Your task to perform on an android device: open app "Indeed Job Search" (install if not already installed), go to login, and select forgot password Image 0: 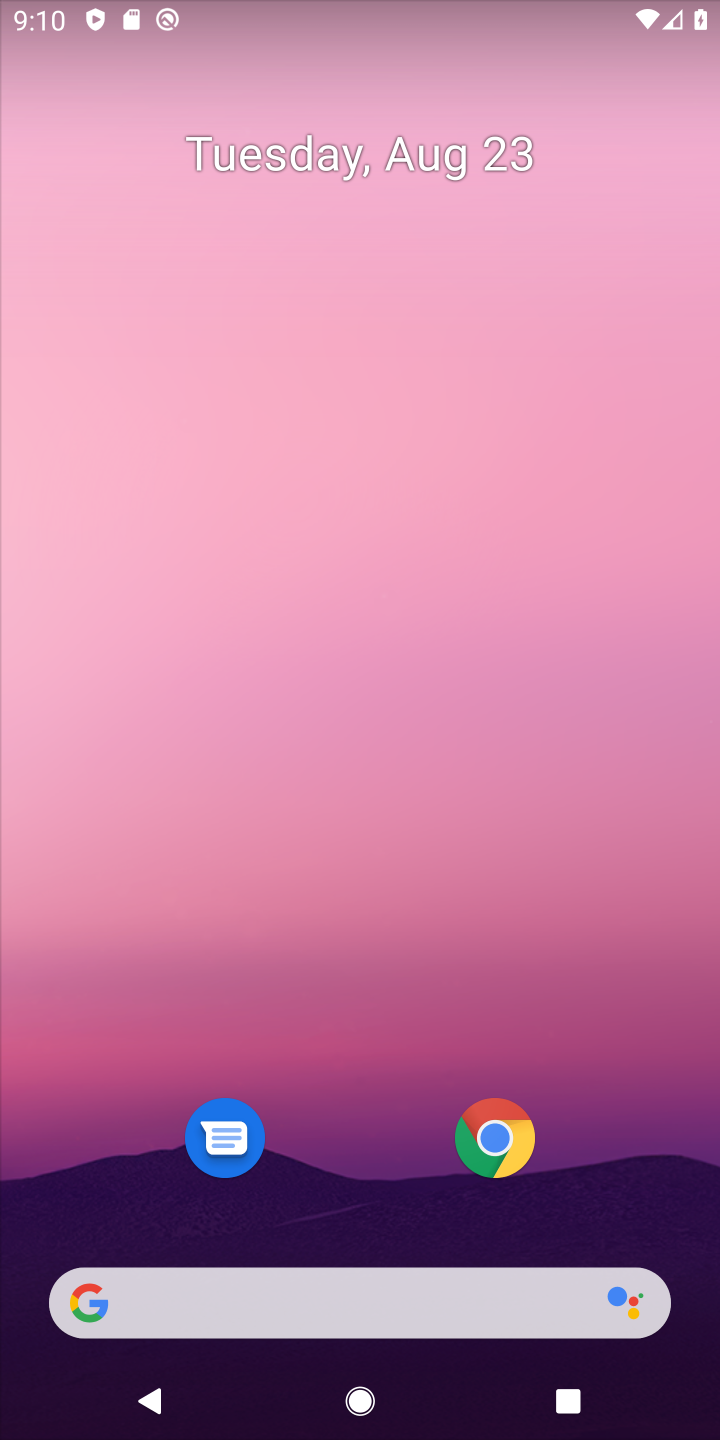
Step 0: drag from (410, 1290) to (594, 66)
Your task to perform on an android device: open app "Indeed Job Search" (install if not already installed), go to login, and select forgot password Image 1: 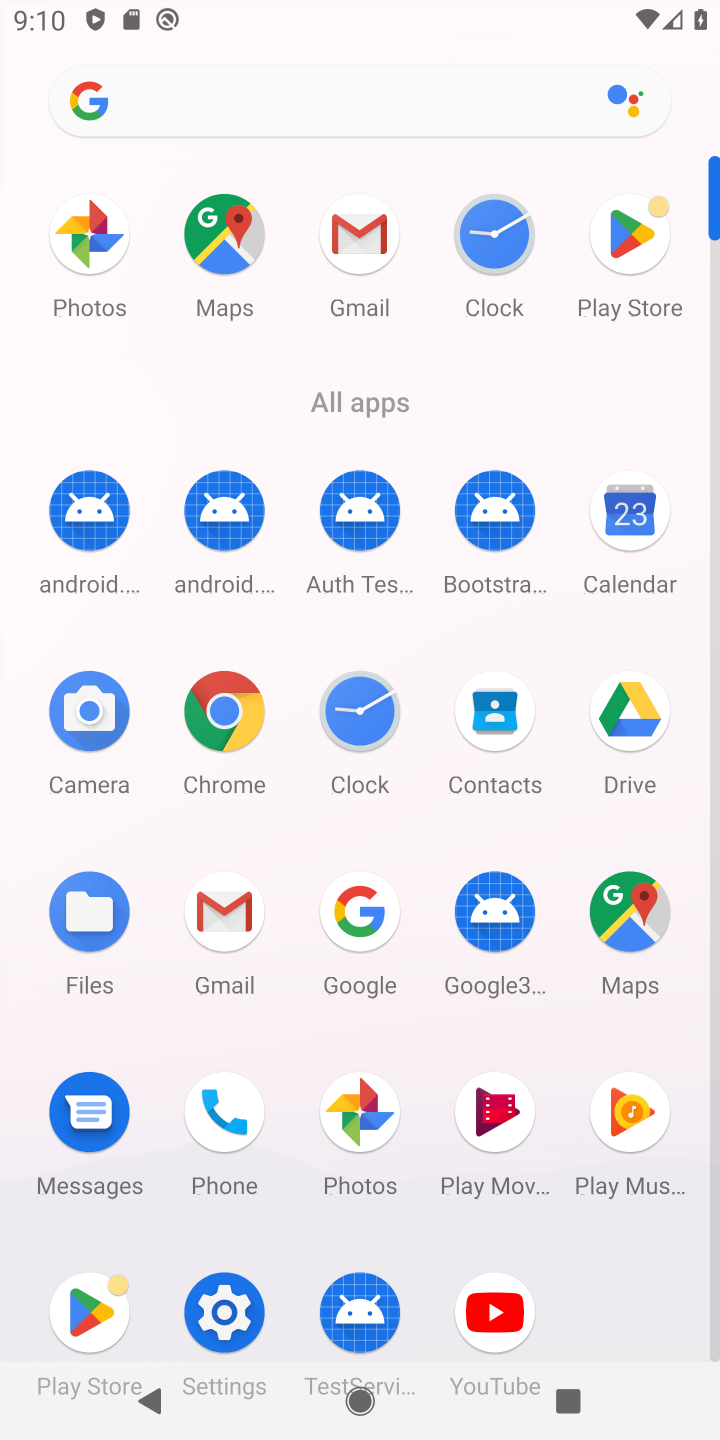
Step 1: drag from (90, 1310) to (424, 753)
Your task to perform on an android device: open app "Indeed Job Search" (install if not already installed), go to login, and select forgot password Image 2: 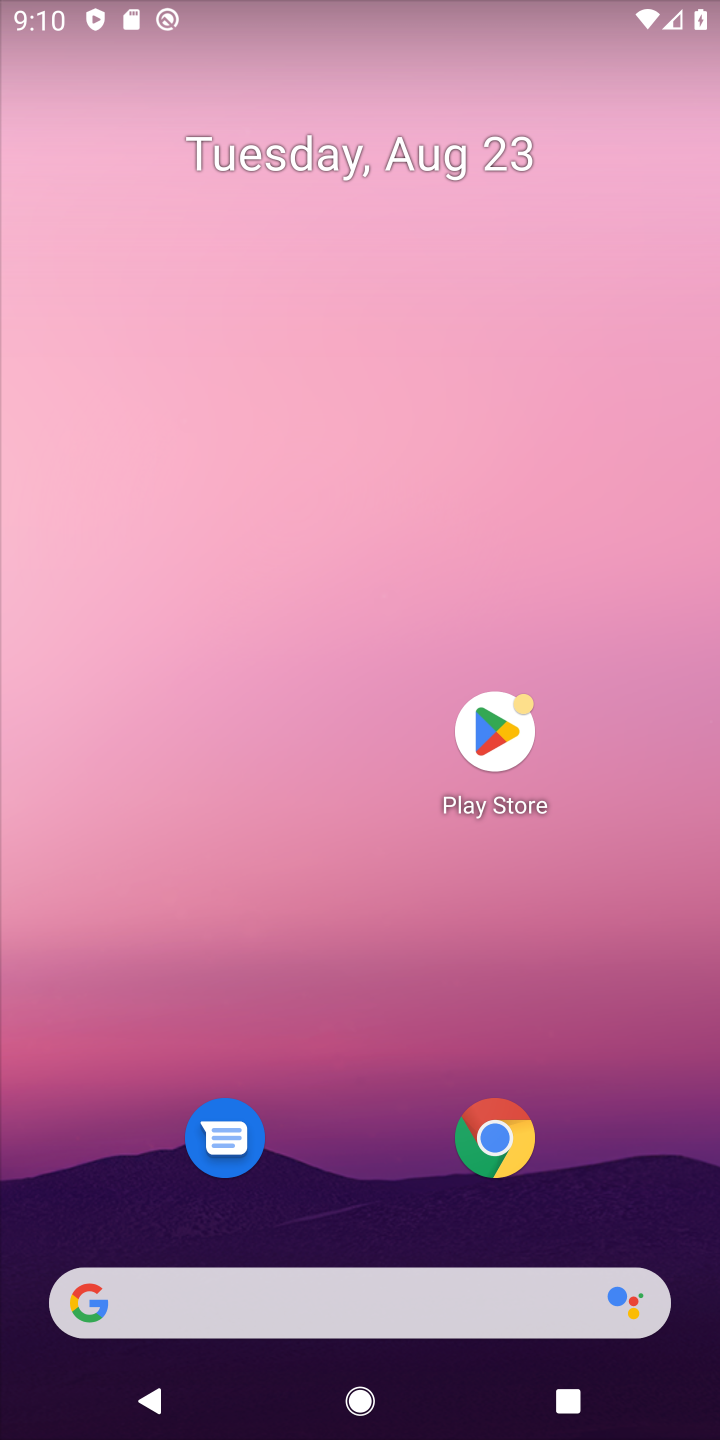
Step 2: click (504, 733)
Your task to perform on an android device: open app "Indeed Job Search" (install if not already installed), go to login, and select forgot password Image 3: 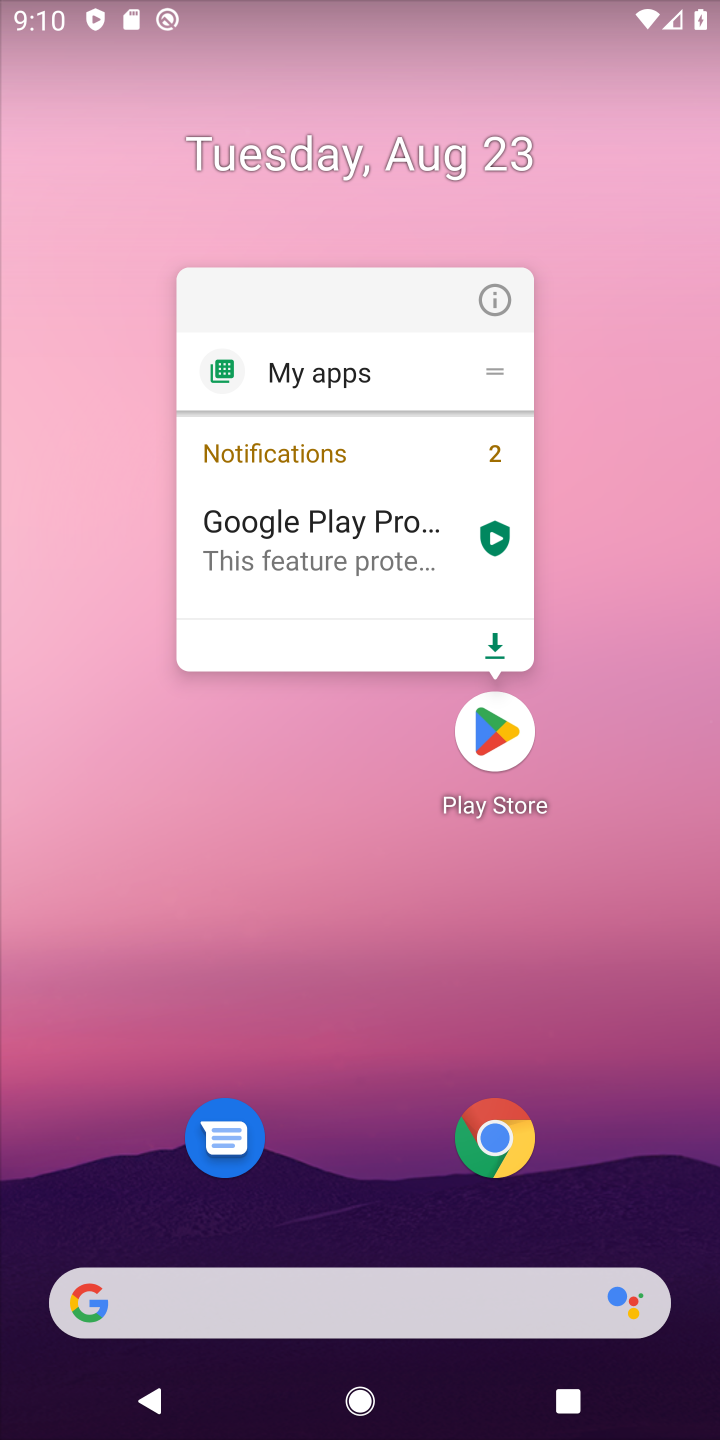
Step 3: click (502, 734)
Your task to perform on an android device: open app "Indeed Job Search" (install if not already installed), go to login, and select forgot password Image 4: 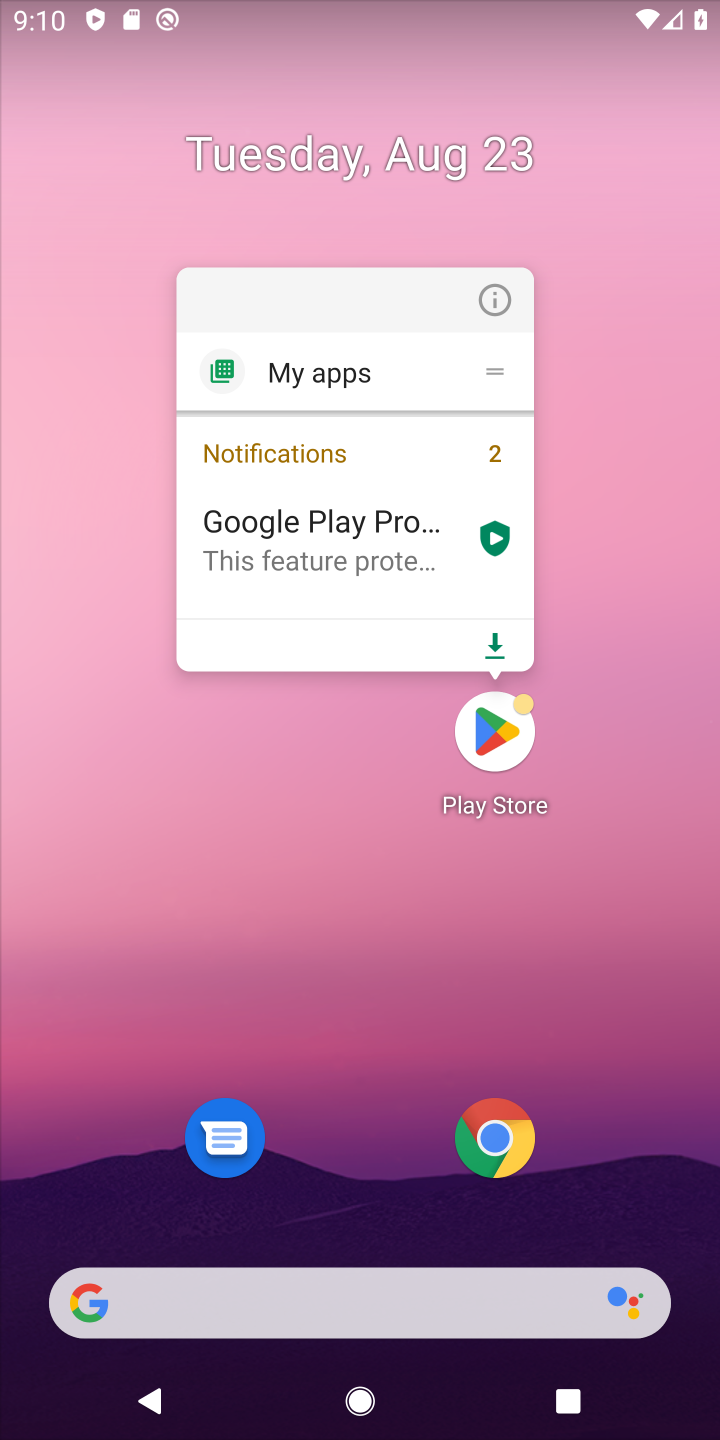
Step 4: click (500, 745)
Your task to perform on an android device: open app "Indeed Job Search" (install if not already installed), go to login, and select forgot password Image 5: 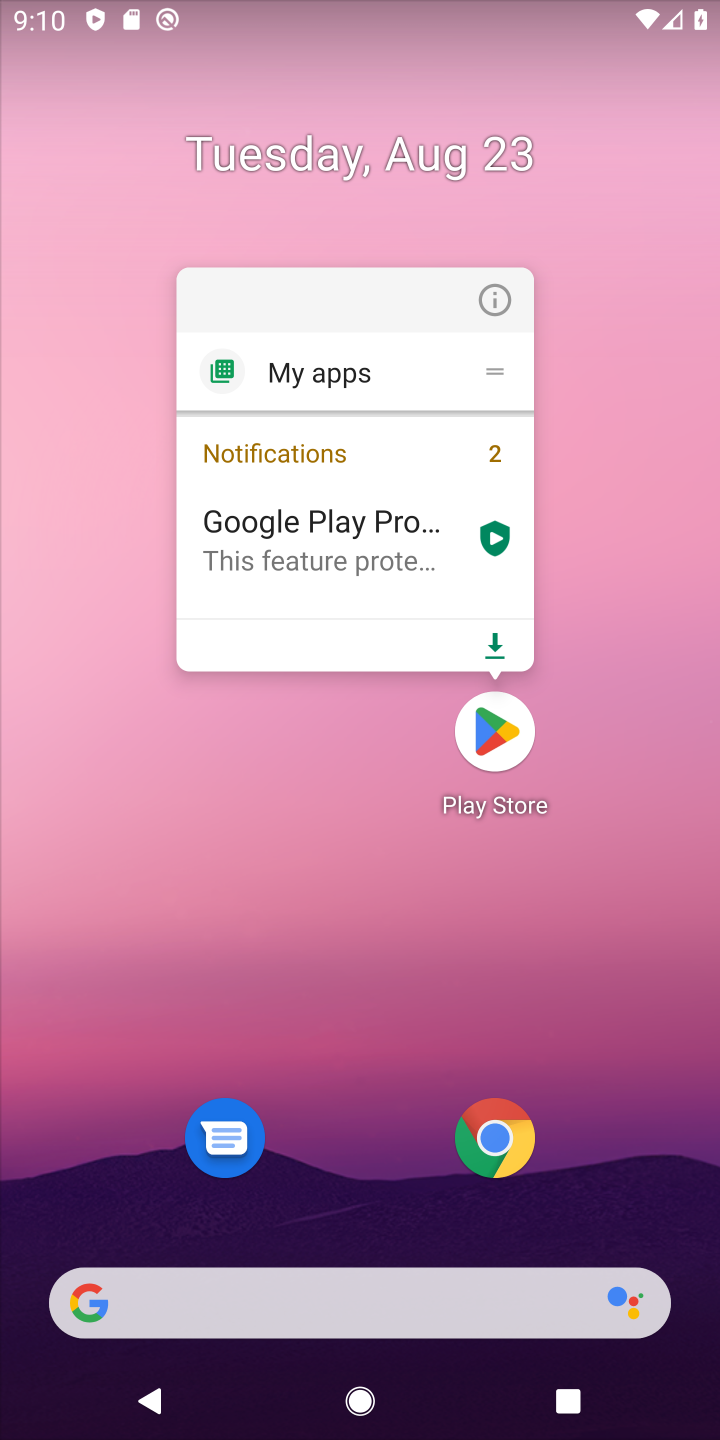
Step 5: click (500, 745)
Your task to perform on an android device: open app "Indeed Job Search" (install if not already installed), go to login, and select forgot password Image 6: 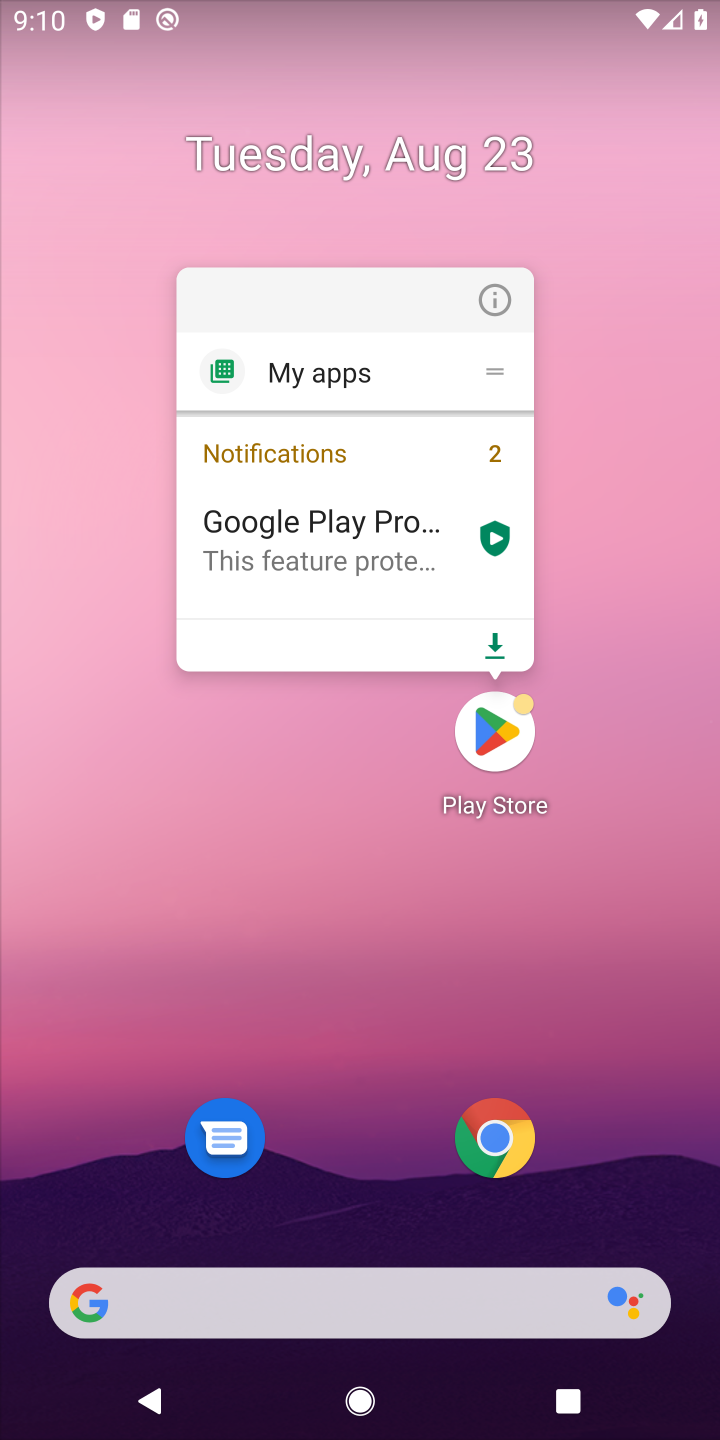
Step 6: click (488, 721)
Your task to perform on an android device: open app "Indeed Job Search" (install if not already installed), go to login, and select forgot password Image 7: 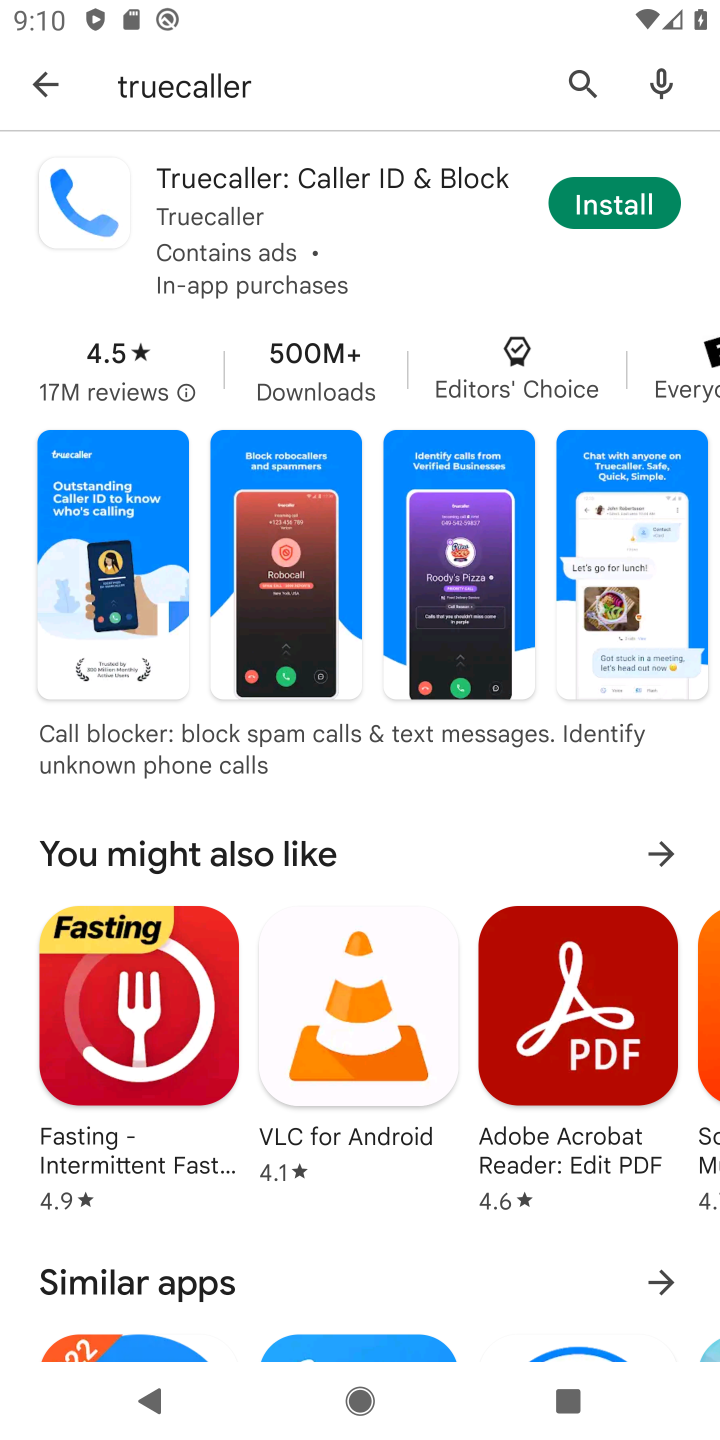
Step 7: click (572, 69)
Your task to perform on an android device: open app "Indeed Job Search" (install if not already installed), go to login, and select forgot password Image 8: 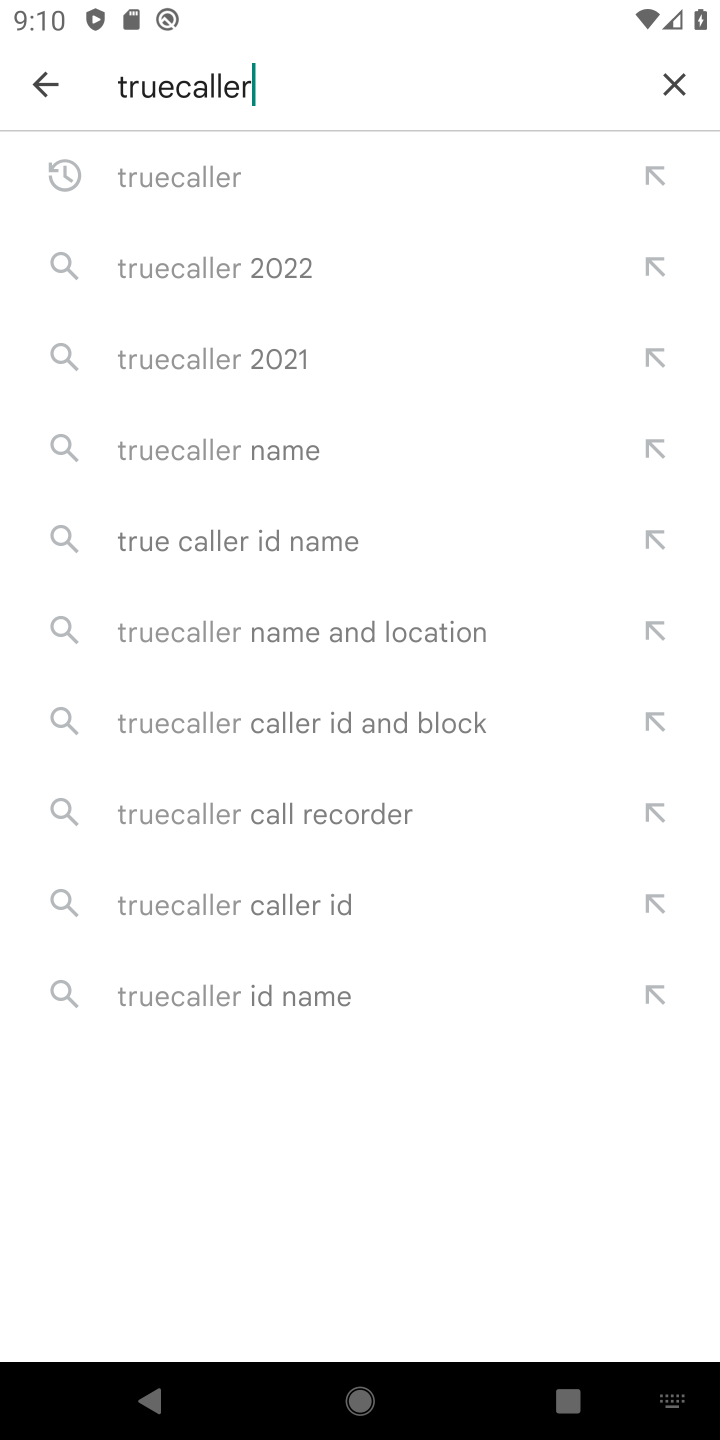
Step 8: click (671, 71)
Your task to perform on an android device: open app "Indeed Job Search" (install if not already installed), go to login, and select forgot password Image 9: 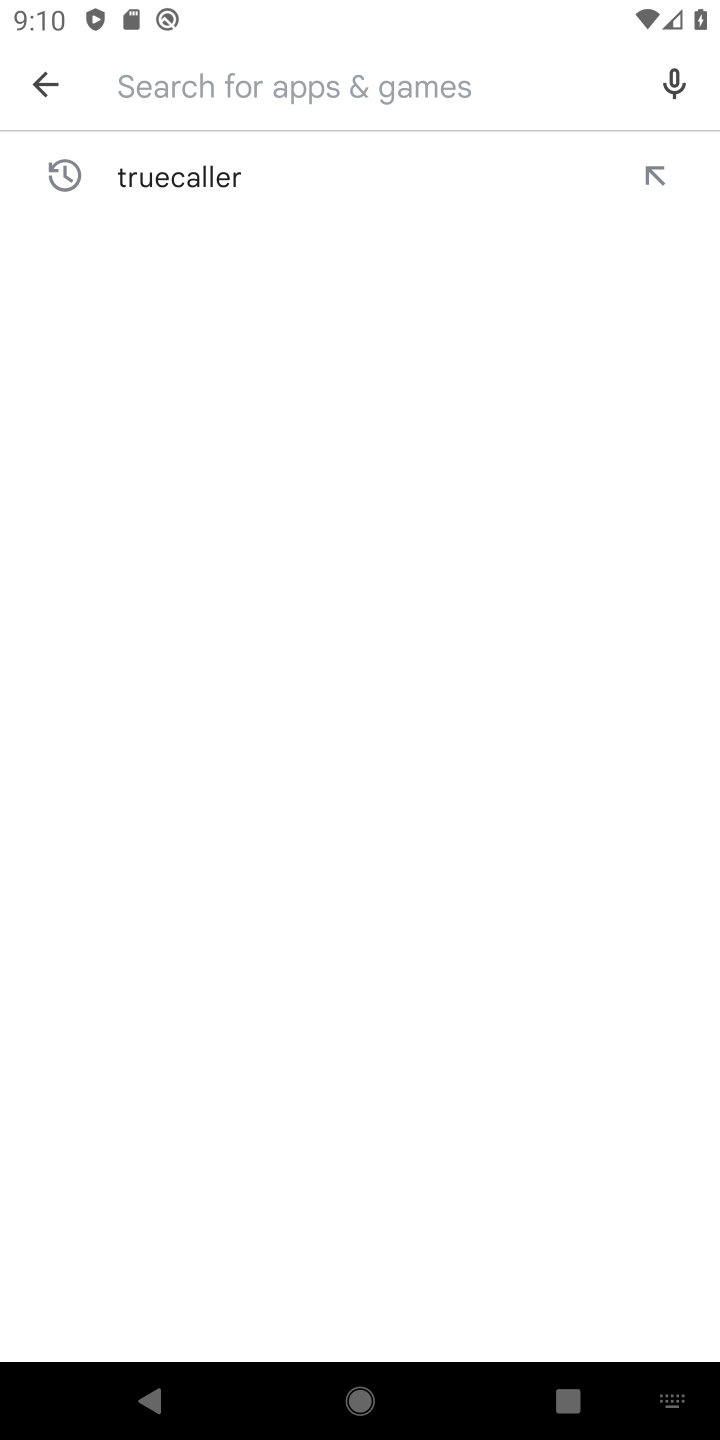
Step 9: type "Indeed Job Search"
Your task to perform on an android device: open app "Indeed Job Search" (install if not already installed), go to login, and select forgot password Image 10: 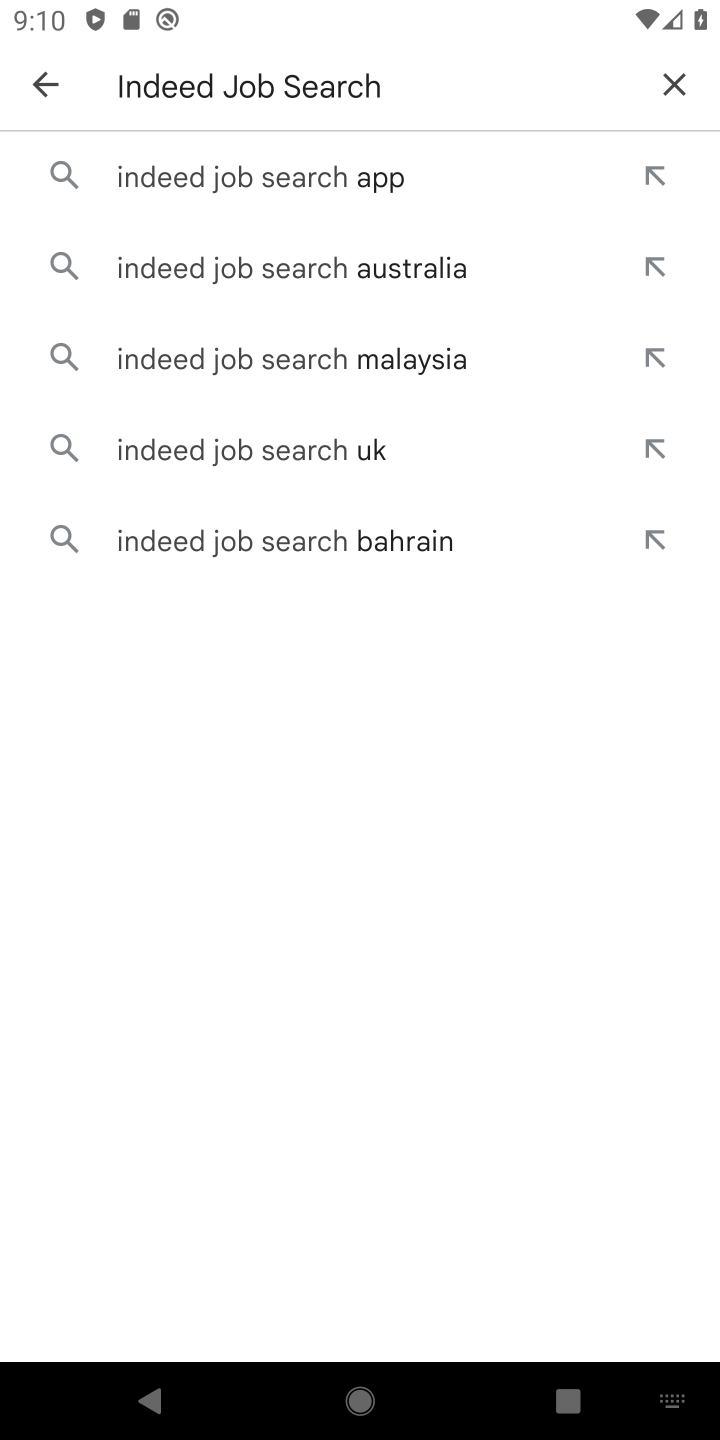
Step 10: click (318, 179)
Your task to perform on an android device: open app "Indeed Job Search" (install if not already installed), go to login, and select forgot password Image 11: 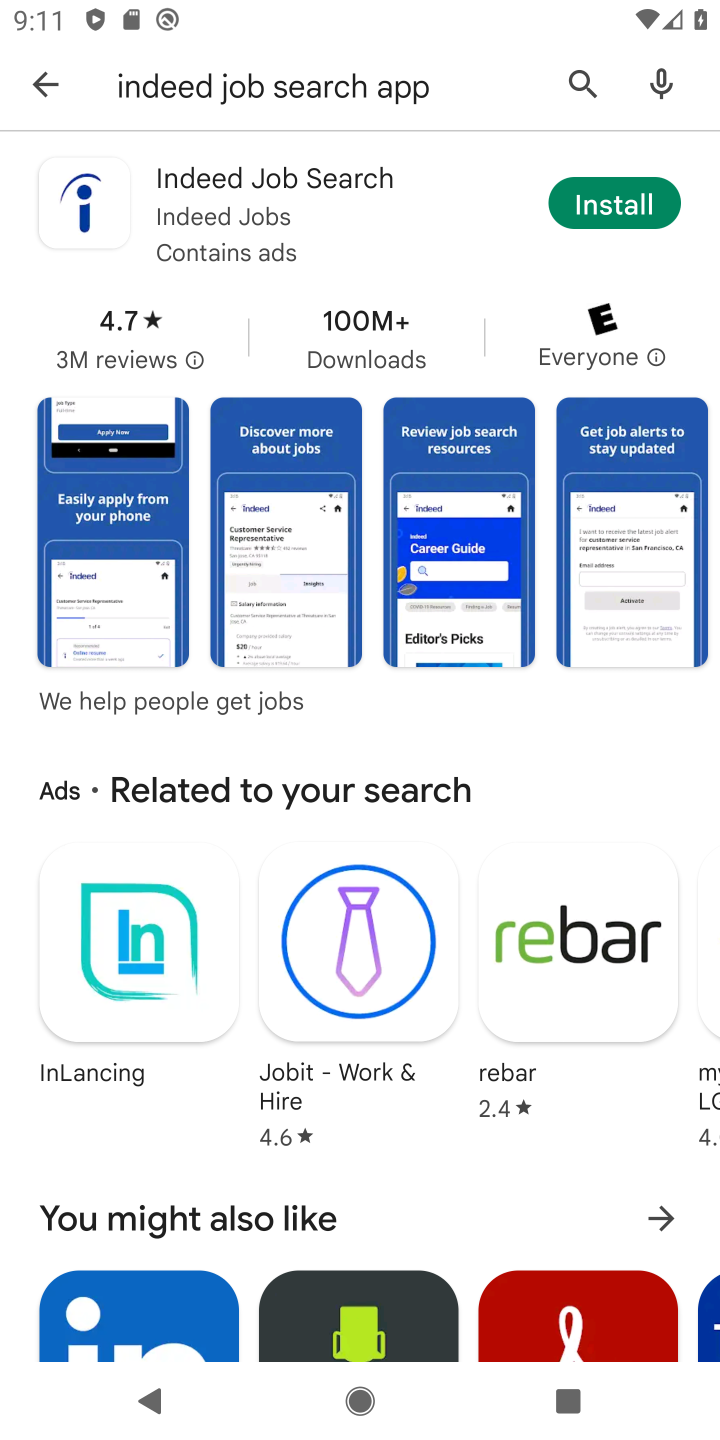
Step 11: click (609, 196)
Your task to perform on an android device: open app "Indeed Job Search" (install if not already installed), go to login, and select forgot password Image 12: 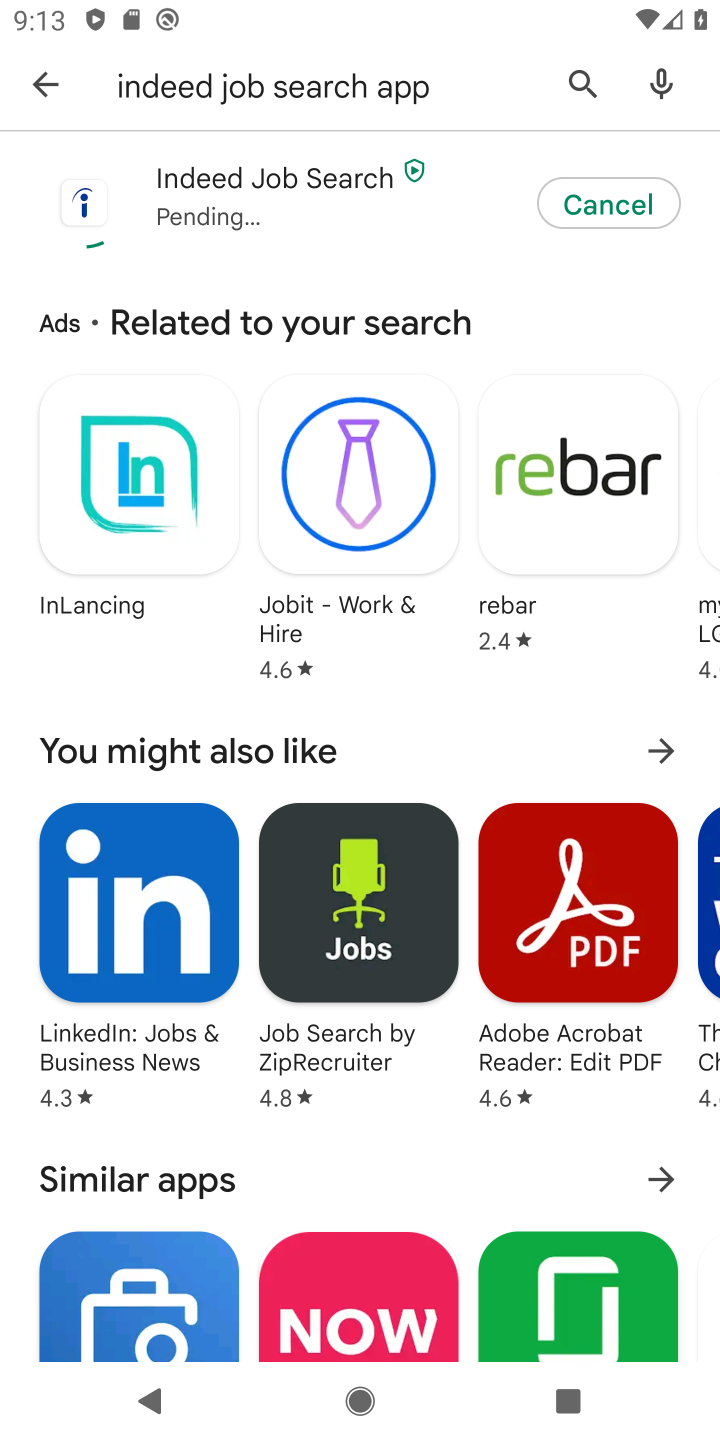
Step 12: press home button
Your task to perform on an android device: open app "Indeed Job Search" (install if not already installed), go to login, and select forgot password Image 13: 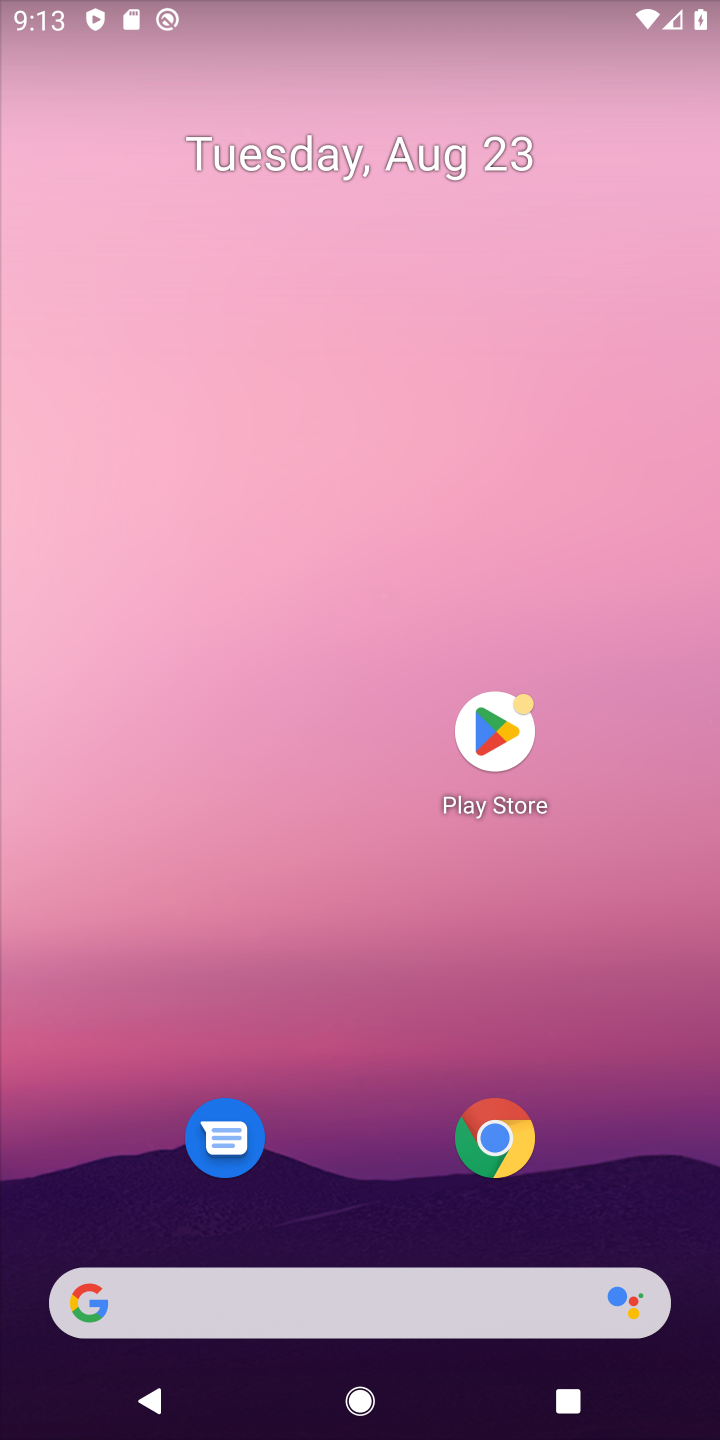
Step 13: click (506, 735)
Your task to perform on an android device: open app "Indeed Job Search" (install if not already installed), go to login, and select forgot password Image 14: 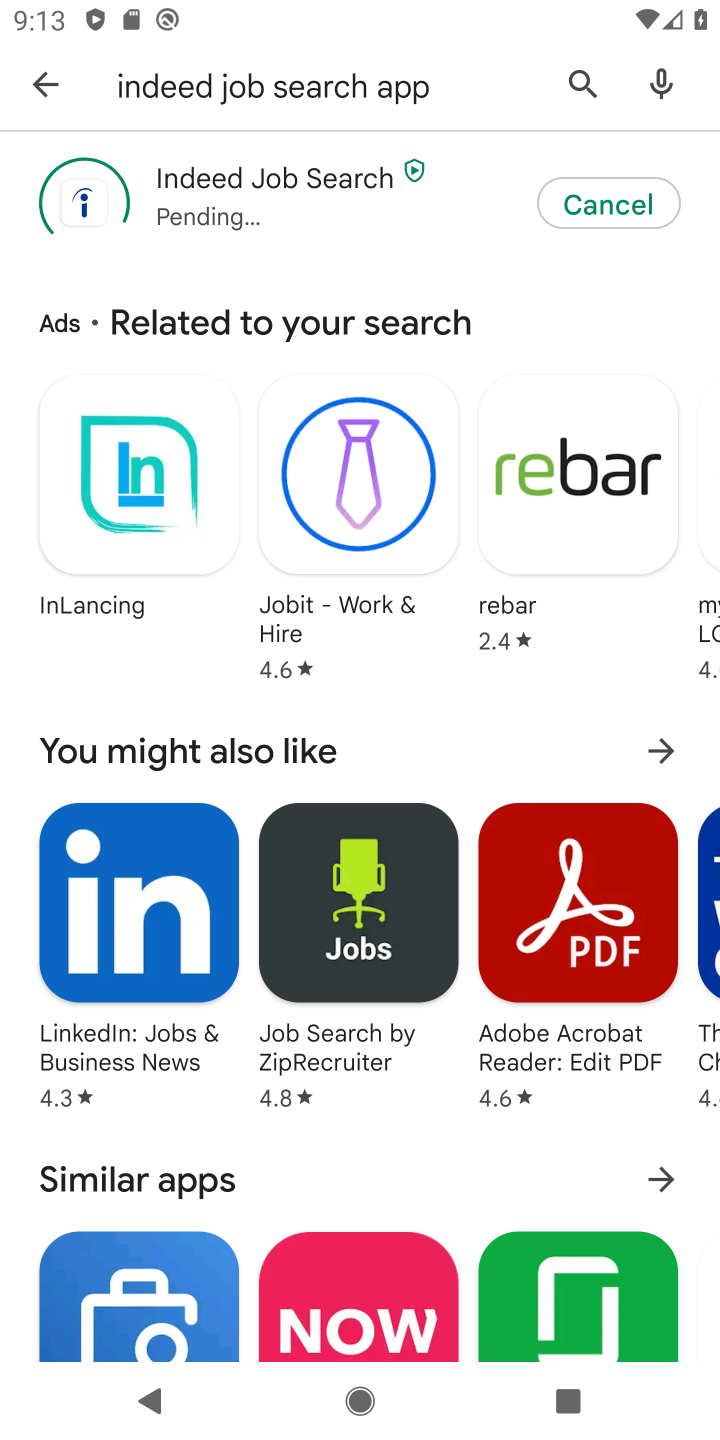
Step 14: task complete